Your task to perform on an android device: Open Yahoo.com Image 0: 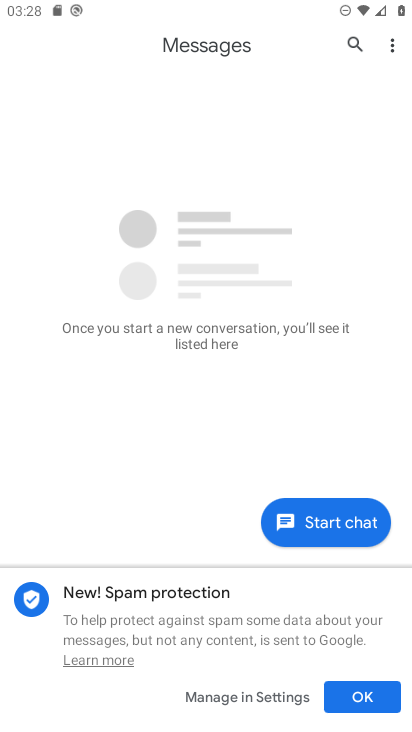
Step 0: press home button
Your task to perform on an android device: Open Yahoo.com Image 1: 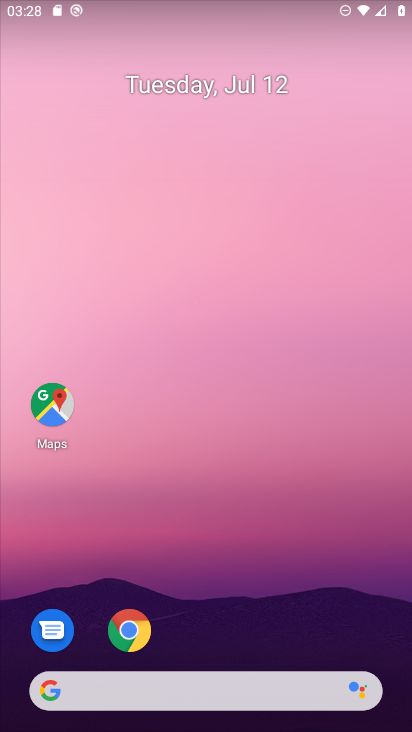
Step 1: click (133, 632)
Your task to perform on an android device: Open Yahoo.com Image 2: 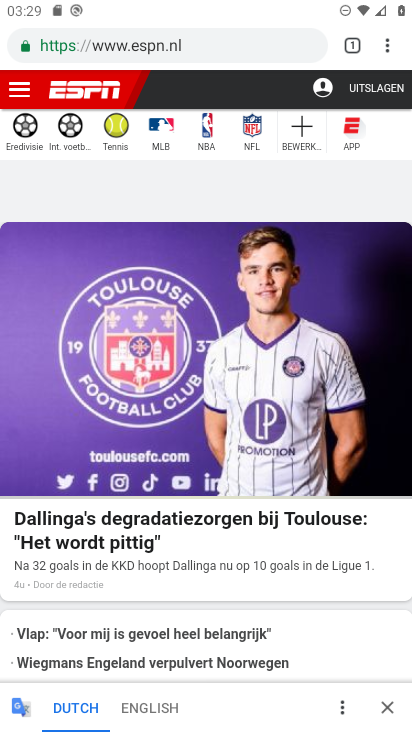
Step 2: click (223, 45)
Your task to perform on an android device: Open Yahoo.com Image 3: 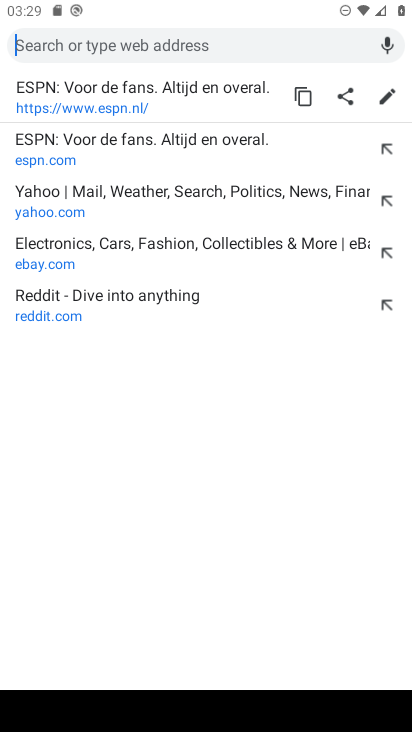
Step 3: type "yahoo.com"
Your task to perform on an android device: Open Yahoo.com Image 4: 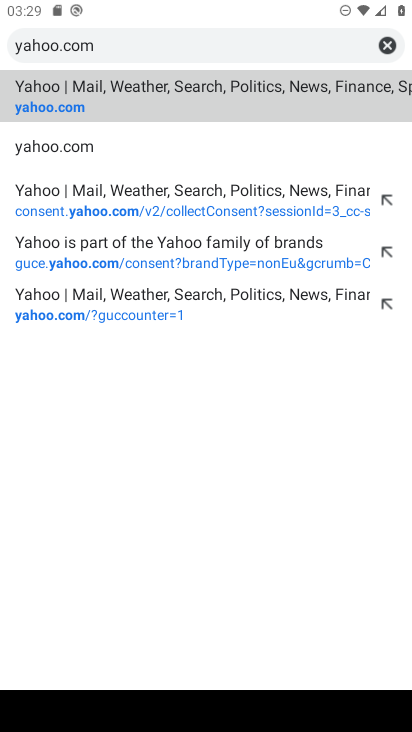
Step 4: click (71, 84)
Your task to perform on an android device: Open Yahoo.com Image 5: 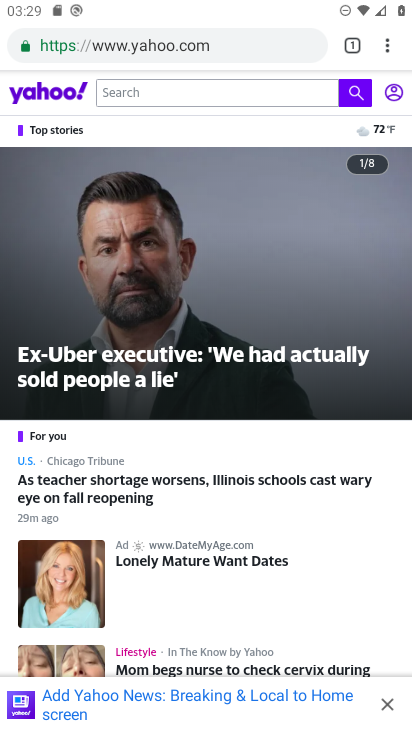
Step 5: task complete